Your task to perform on an android device: clear history in the chrome app Image 0: 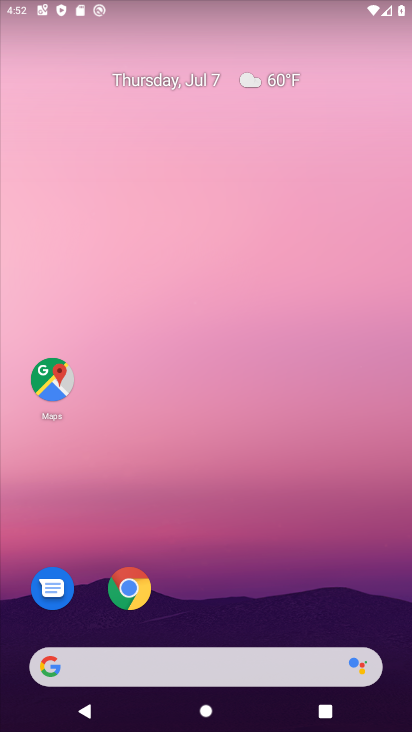
Step 0: click (121, 571)
Your task to perform on an android device: clear history in the chrome app Image 1: 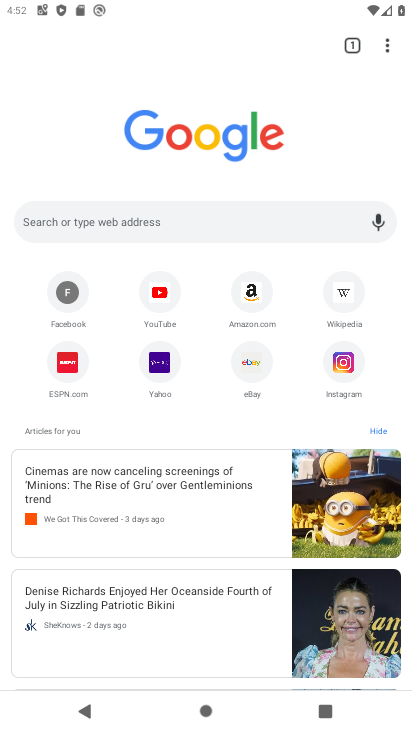
Step 1: drag from (385, 38) to (205, 250)
Your task to perform on an android device: clear history in the chrome app Image 2: 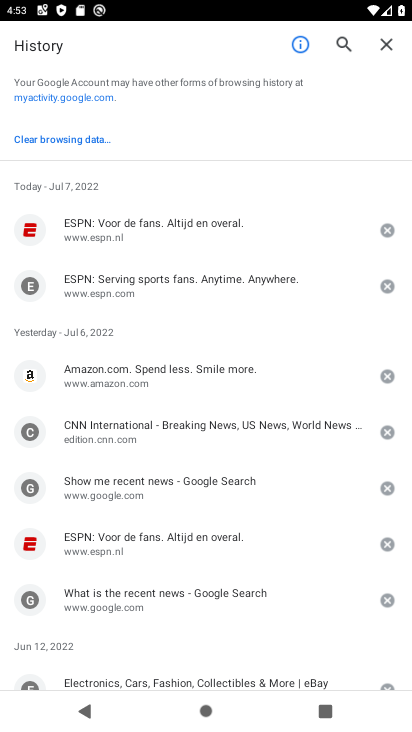
Step 2: click (94, 156)
Your task to perform on an android device: clear history in the chrome app Image 3: 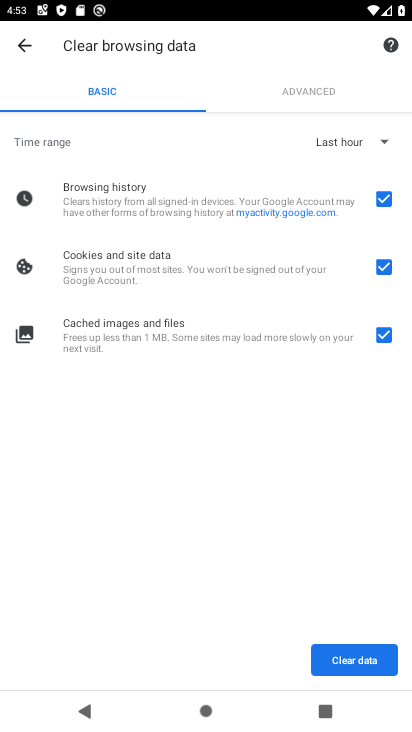
Step 3: click (358, 651)
Your task to perform on an android device: clear history in the chrome app Image 4: 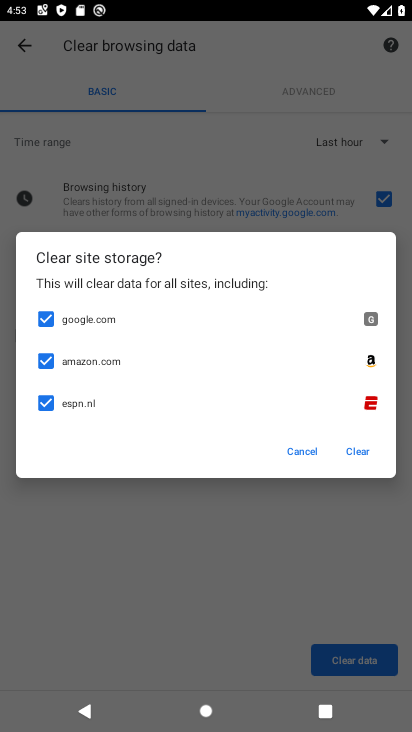
Step 4: click (359, 446)
Your task to perform on an android device: clear history in the chrome app Image 5: 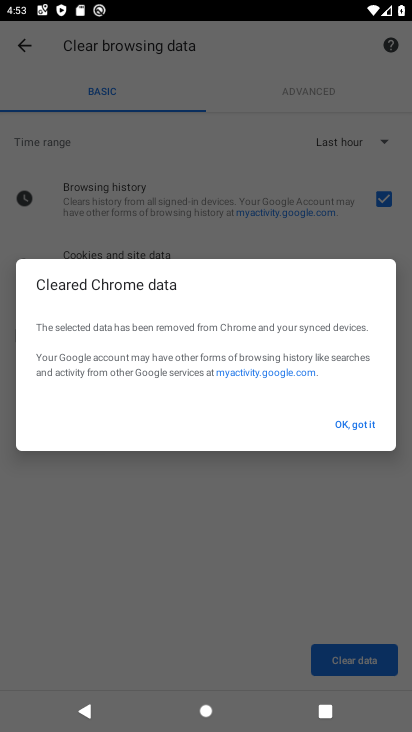
Step 5: click (363, 426)
Your task to perform on an android device: clear history in the chrome app Image 6: 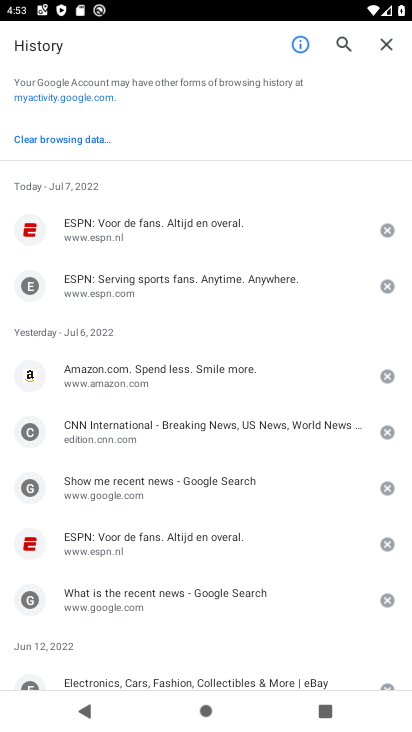
Step 6: task complete